Your task to perform on an android device: turn on translation in the chrome app Image 0: 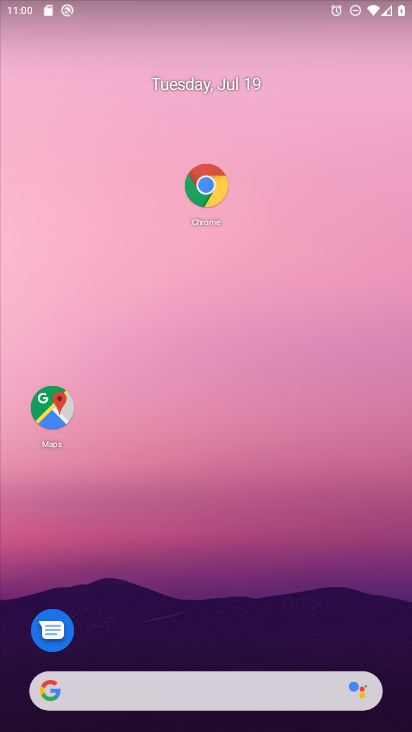
Step 0: drag from (157, 533) to (193, 186)
Your task to perform on an android device: turn on translation in the chrome app Image 1: 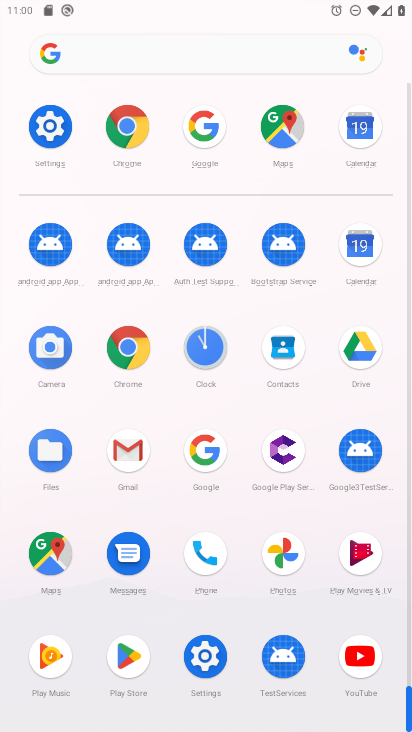
Step 1: click (120, 157)
Your task to perform on an android device: turn on translation in the chrome app Image 2: 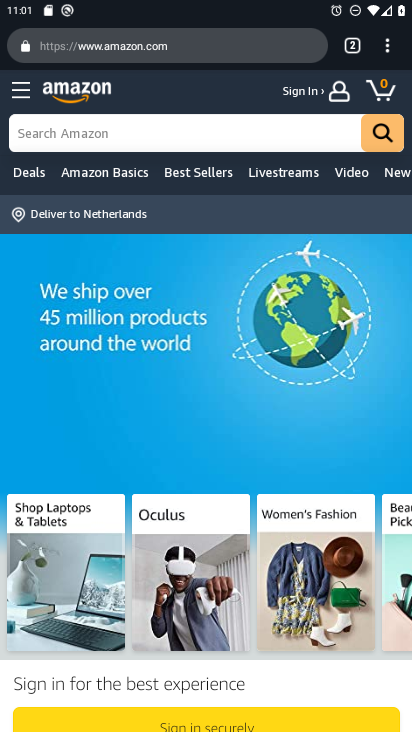
Step 2: click (386, 51)
Your task to perform on an android device: turn on translation in the chrome app Image 3: 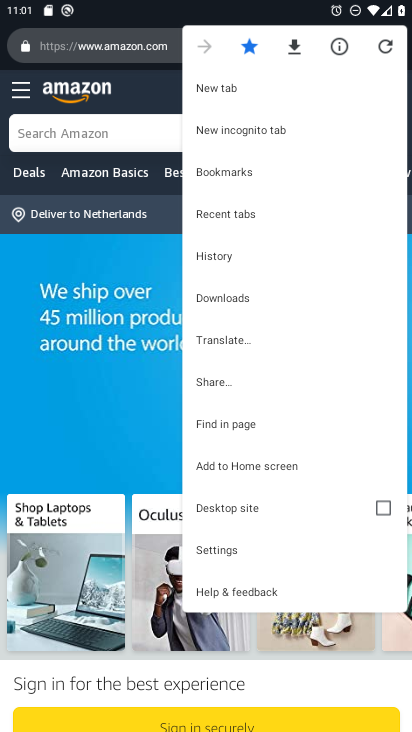
Step 3: click (242, 342)
Your task to perform on an android device: turn on translation in the chrome app Image 4: 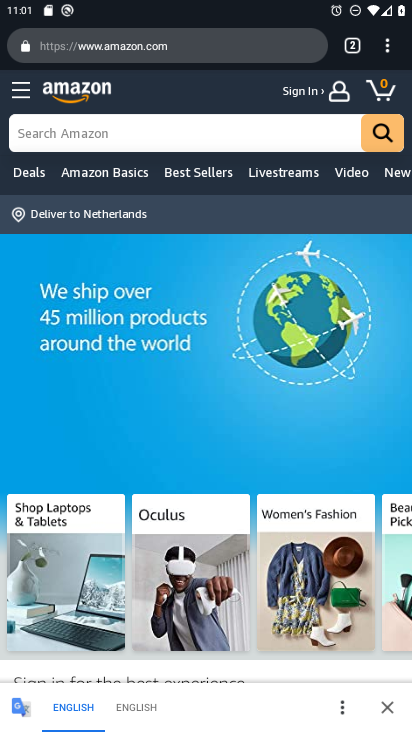
Step 4: click (330, 711)
Your task to perform on an android device: turn on translation in the chrome app Image 5: 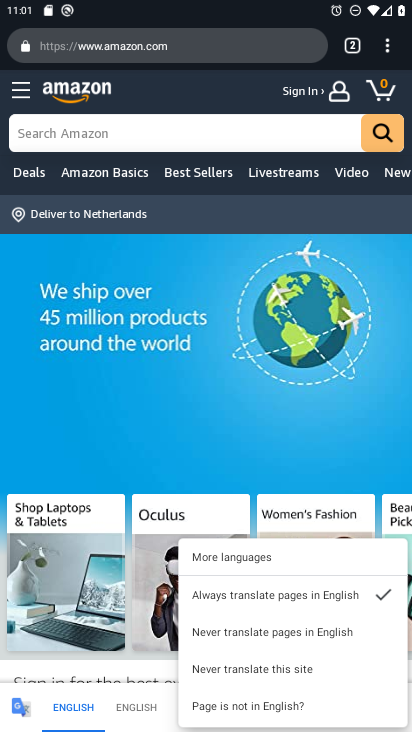
Step 5: task complete